Your task to perform on an android device: Clear the cart on newegg. Search for bose soundlink on newegg, select the first entry, add it to the cart, then select checkout. Image 0: 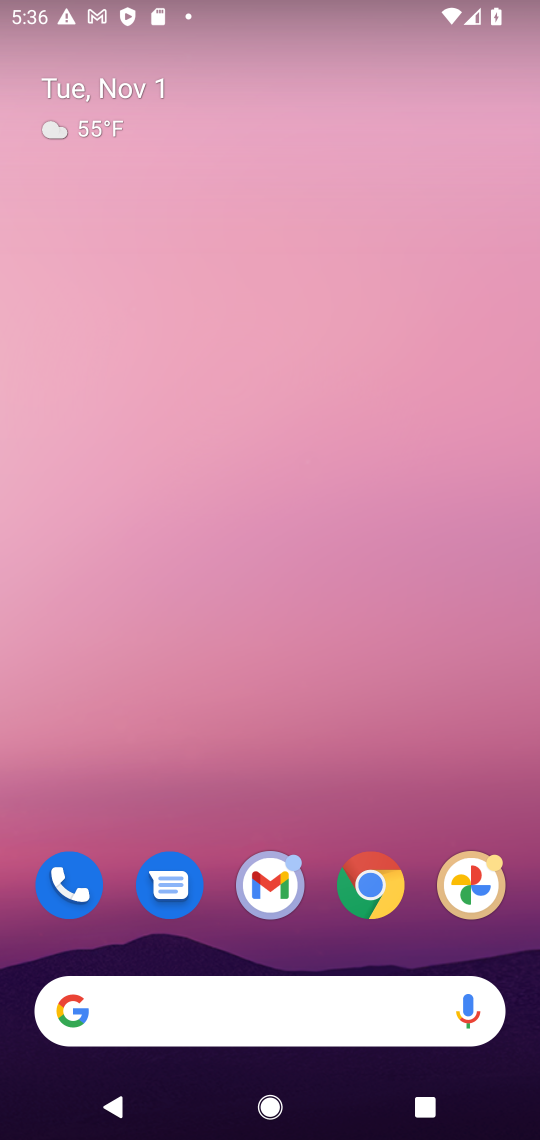
Step 0: click (372, 885)
Your task to perform on an android device: Clear the cart on newegg. Search for bose soundlink on newegg, select the first entry, add it to the cart, then select checkout. Image 1: 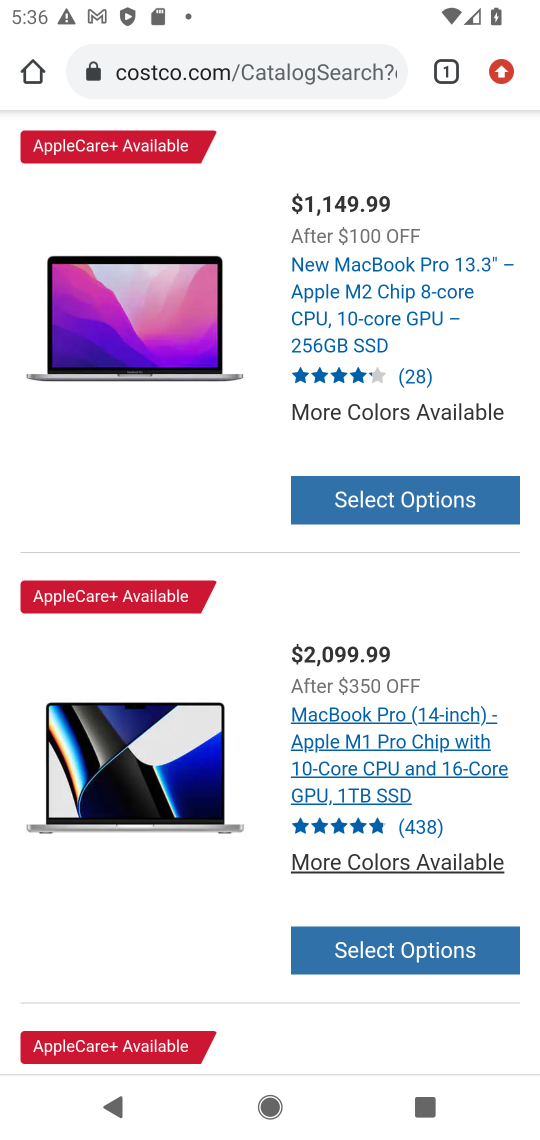
Step 1: click (273, 46)
Your task to perform on an android device: Clear the cart on newegg. Search for bose soundlink on newegg, select the first entry, add it to the cart, then select checkout. Image 2: 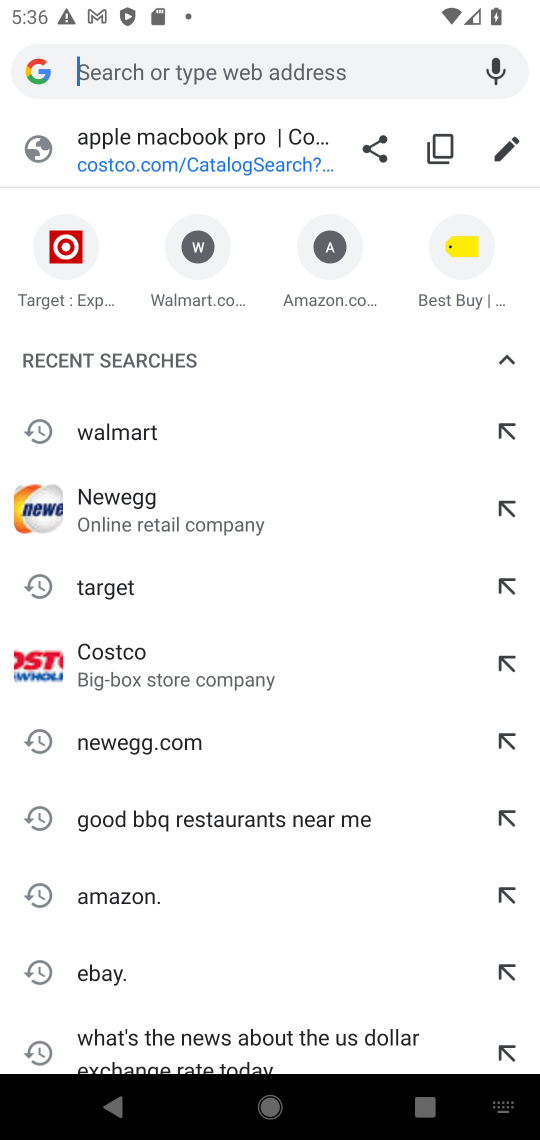
Step 2: type "newegg.com"
Your task to perform on an android device: Clear the cart on newegg. Search for bose soundlink on newegg, select the first entry, add it to the cart, then select checkout. Image 3: 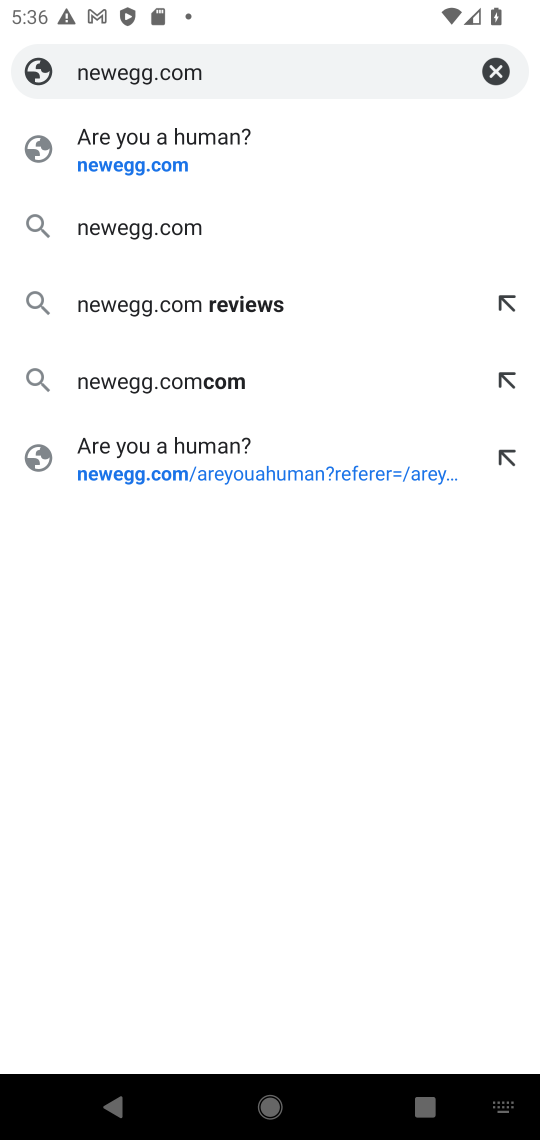
Step 3: click (127, 226)
Your task to perform on an android device: Clear the cart on newegg. Search for bose soundlink on newegg, select the first entry, add it to the cart, then select checkout. Image 4: 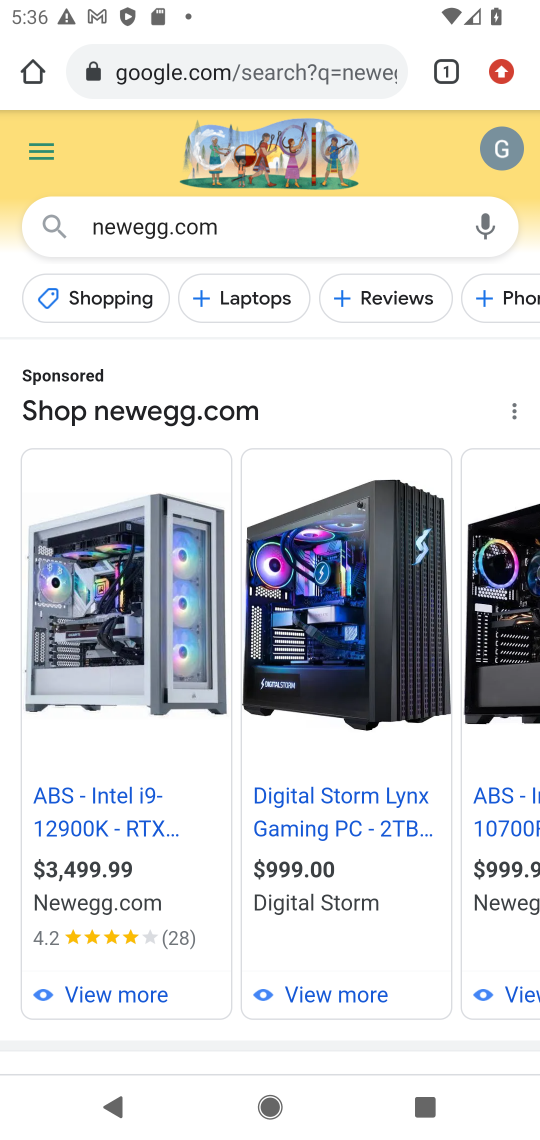
Step 4: drag from (456, 1028) to (421, 291)
Your task to perform on an android device: Clear the cart on newegg. Search for bose soundlink on newegg, select the first entry, add it to the cart, then select checkout. Image 5: 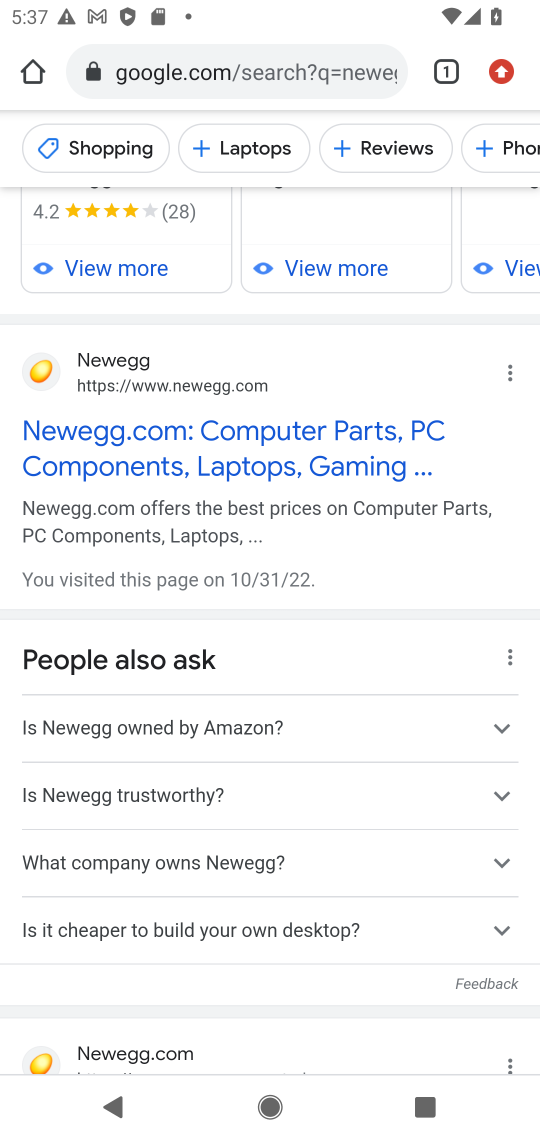
Step 5: click (108, 450)
Your task to perform on an android device: Clear the cart on newegg. Search for bose soundlink on newegg, select the first entry, add it to the cart, then select checkout. Image 6: 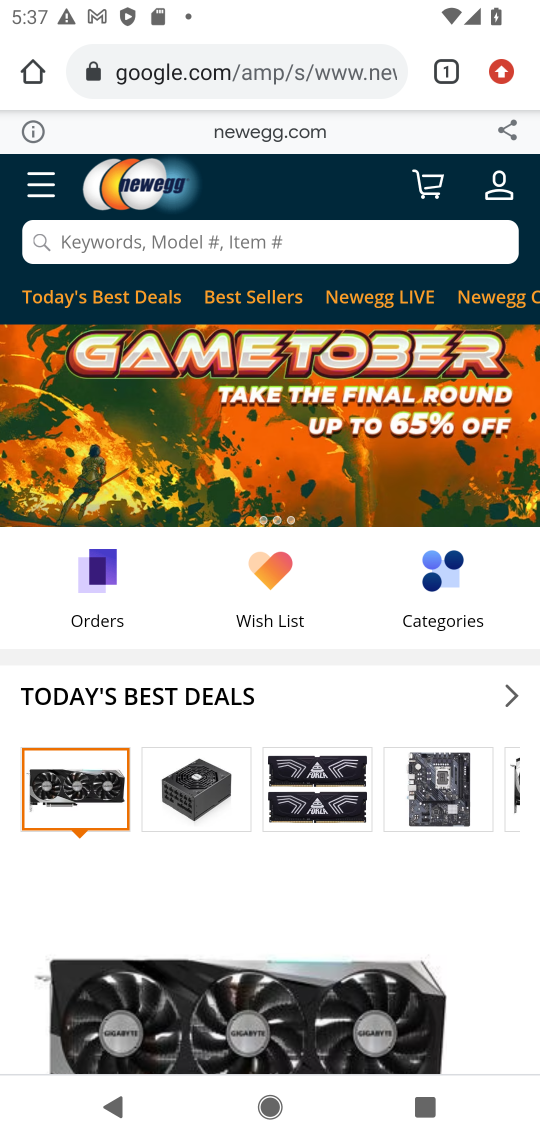
Step 6: click (90, 243)
Your task to perform on an android device: Clear the cart on newegg. Search for bose soundlink on newegg, select the first entry, add it to the cart, then select checkout. Image 7: 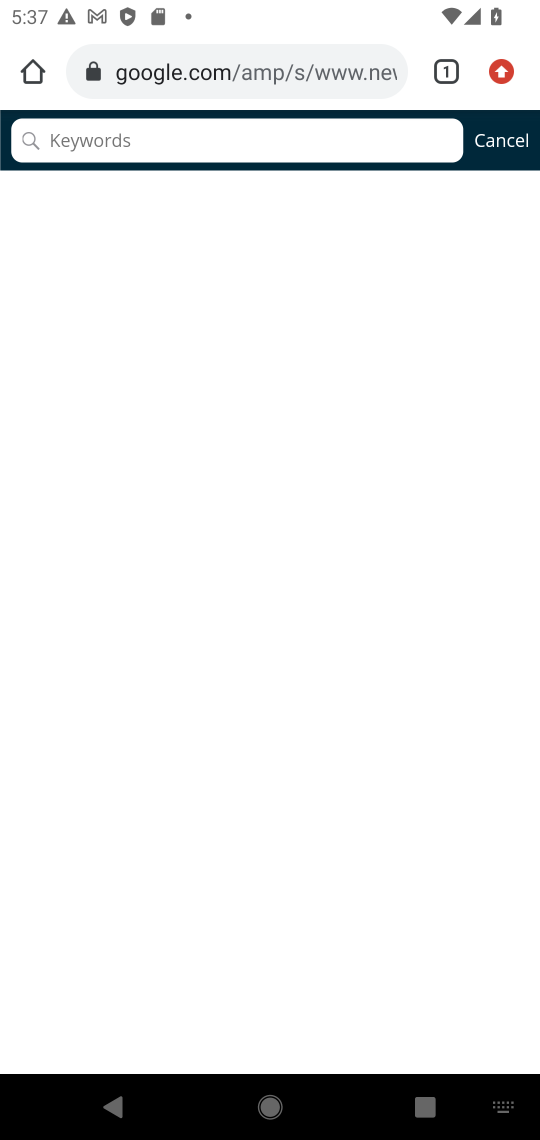
Step 7: type "bose soundlink "
Your task to perform on an android device: Clear the cart on newegg. Search for bose soundlink on newegg, select the first entry, add it to the cart, then select checkout. Image 8: 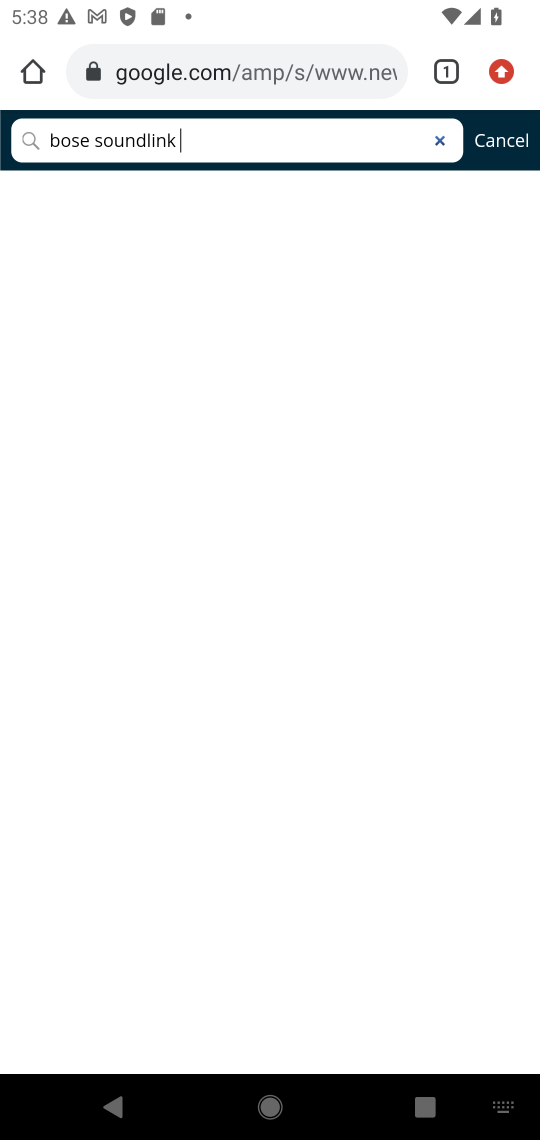
Step 8: click (440, 141)
Your task to perform on an android device: Clear the cart on newegg. Search for bose soundlink on newegg, select the first entry, add it to the cart, then select checkout. Image 9: 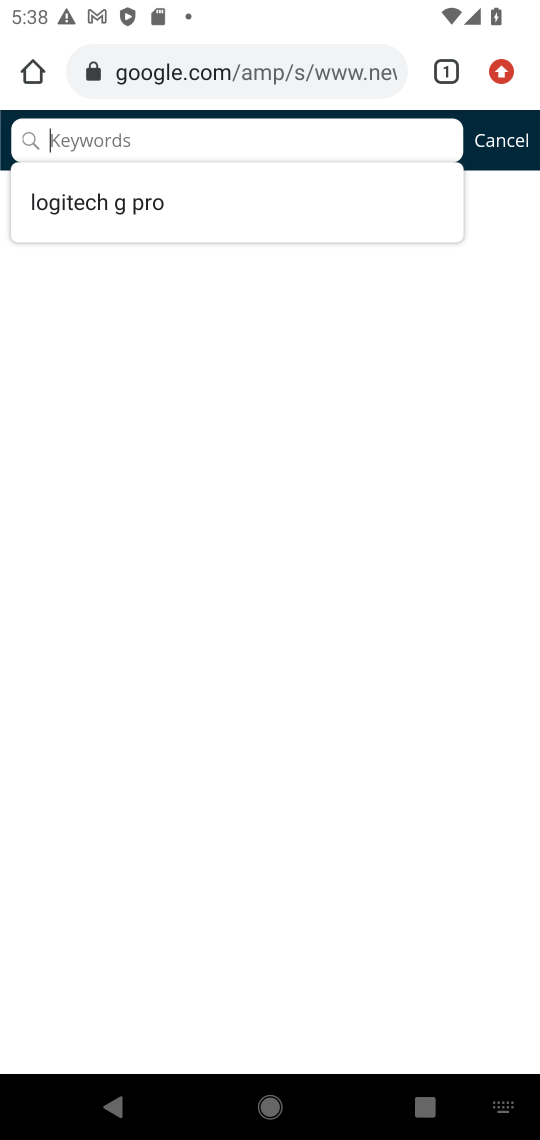
Step 9: click (485, 133)
Your task to perform on an android device: Clear the cart on newegg. Search for bose soundlink on newegg, select the first entry, add it to the cart, then select checkout. Image 10: 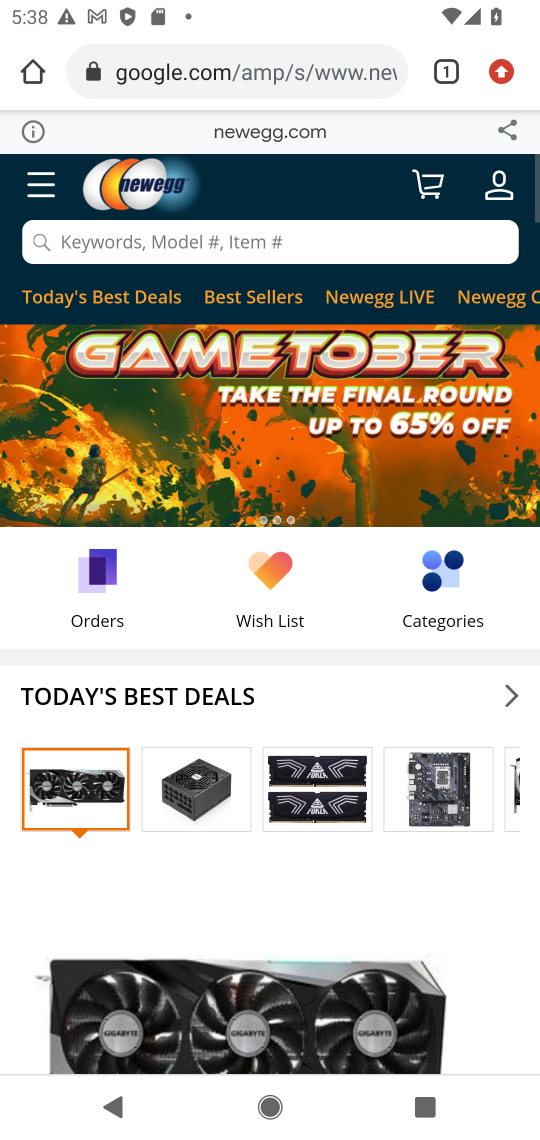
Step 10: click (423, 180)
Your task to perform on an android device: Clear the cart on newegg. Search for bose soundlink on newegg, select the first entry, add it to the cart, then select checkout. Image 11: 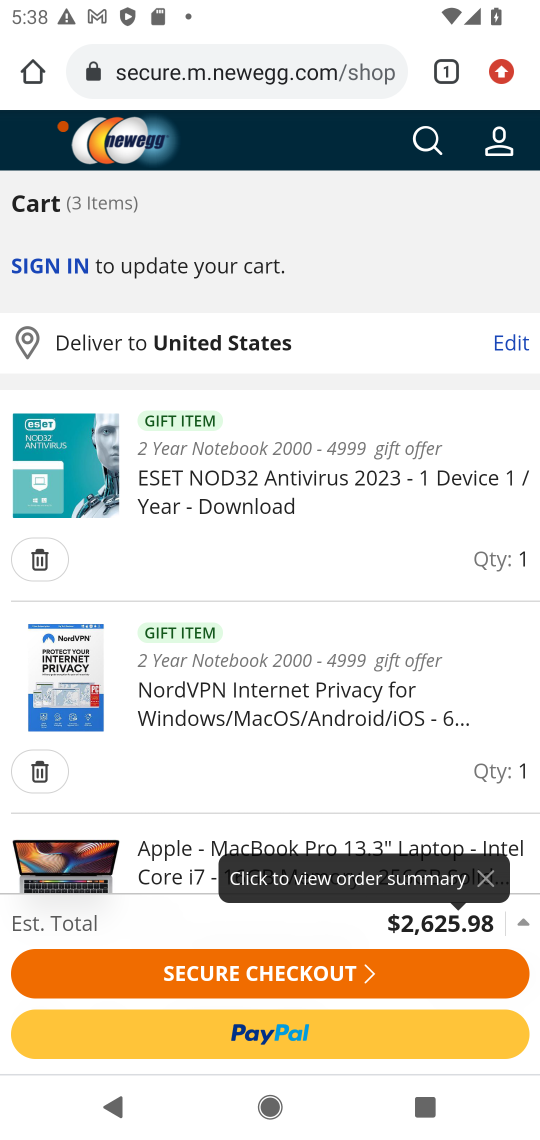
Step 11: drag from (294, 776) to (287, 427)
Your task to perform on an android device: Clear the cart on newegg. Search for bose soundlink on newegg, select the first entry, add it to the cart, then select checkout. Image 12: 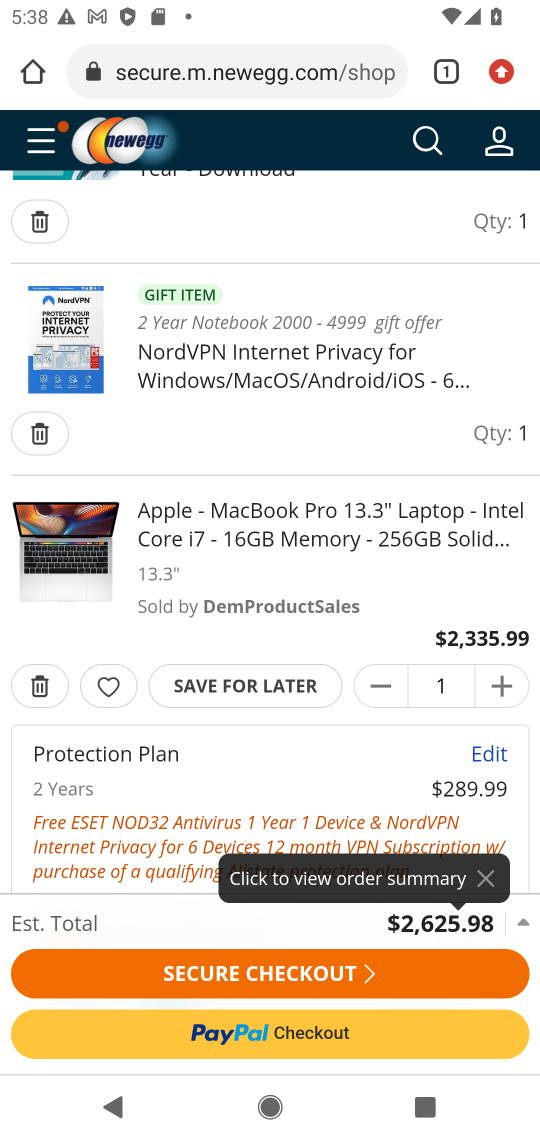
Step 12: click (35, 431)
Your task to perform on an android device: Clear the cart on newegg. Search for bose soundlink on newegg, select the first entry, add it to the cart, then select checkout. Image 13: 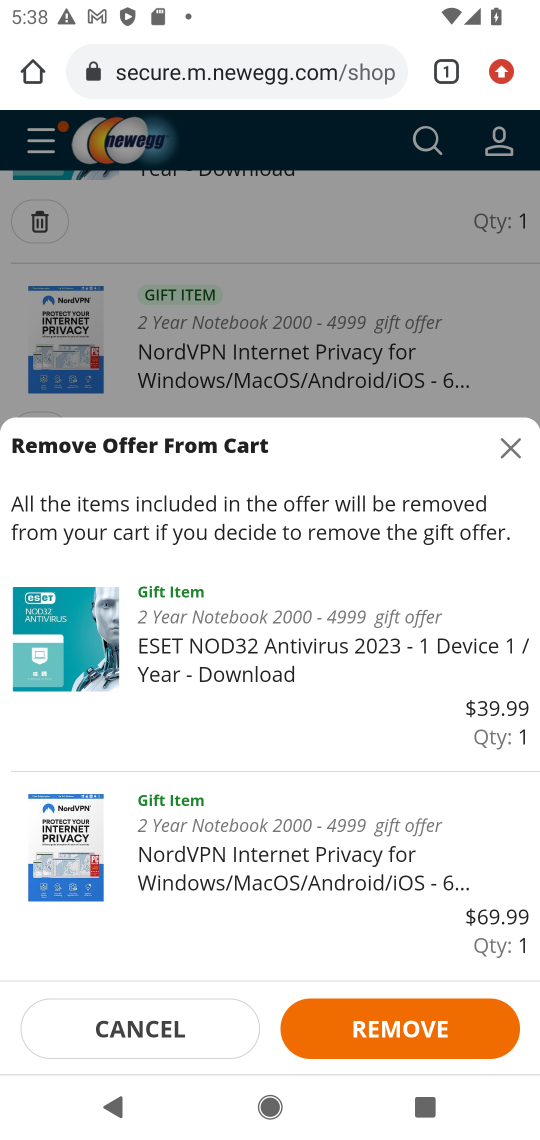
Step 13: click (369, 1031)
Your task to perform on an android device: Clear the cart on newegg. Search for bose soundlink on newegg, select the first entry, add it to the cart, then select checkout. Image 14: 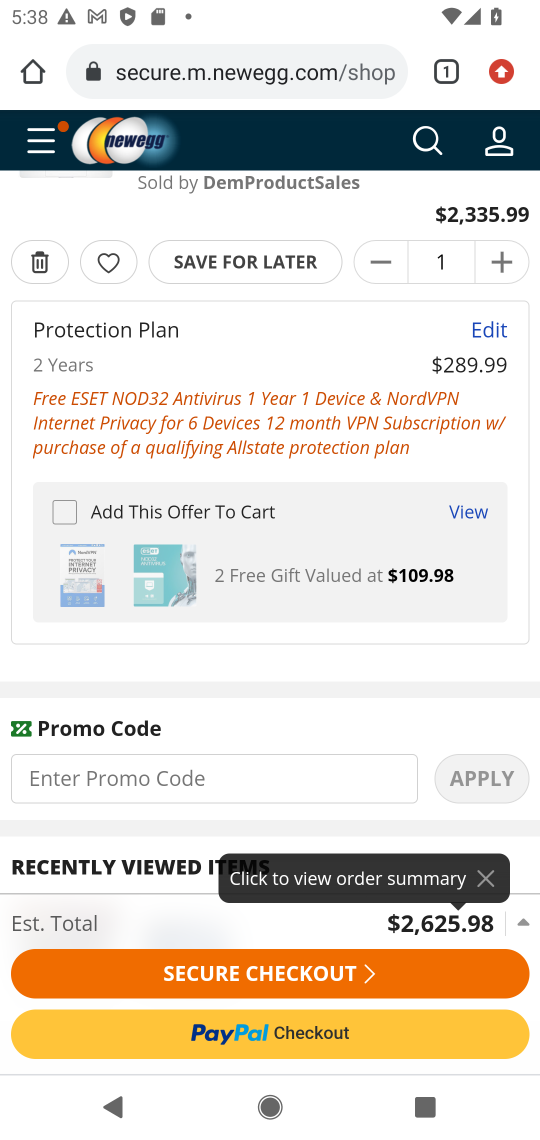
Step 14: click (37, 262)
Your task to perform on an android device: Clear the cart on newegg. Search for bose soundlink on newegg, select the first entry, add it to the cart, then select checkout. Image 15: 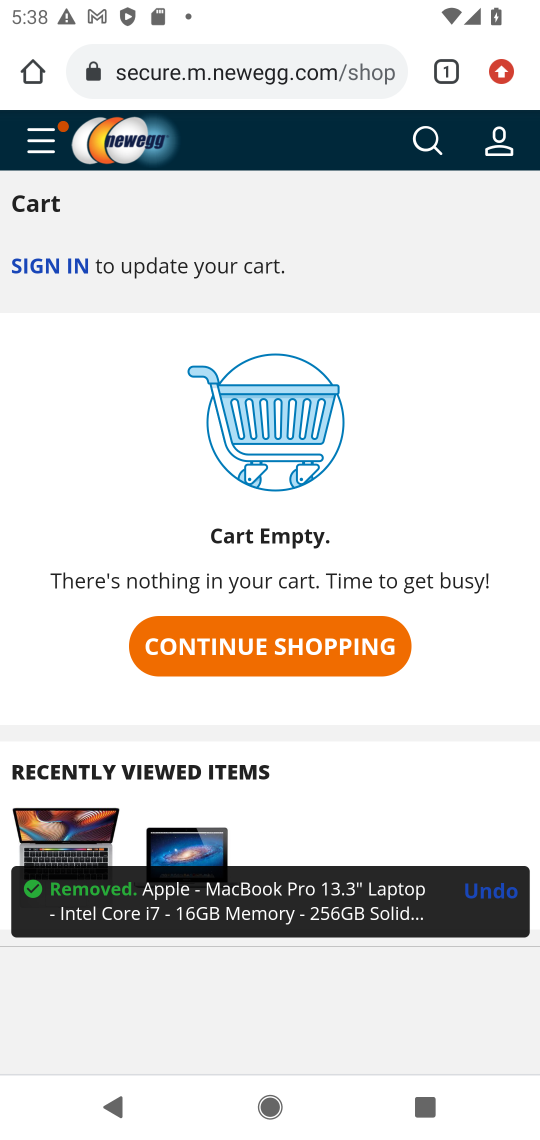
Step 15: click (422, 134)
Your task to perform on an android device: Clear the cart on newegg. Search for bose soundlink on newegg, select the first entry, add it to the cart, then select checkout. Image 16: 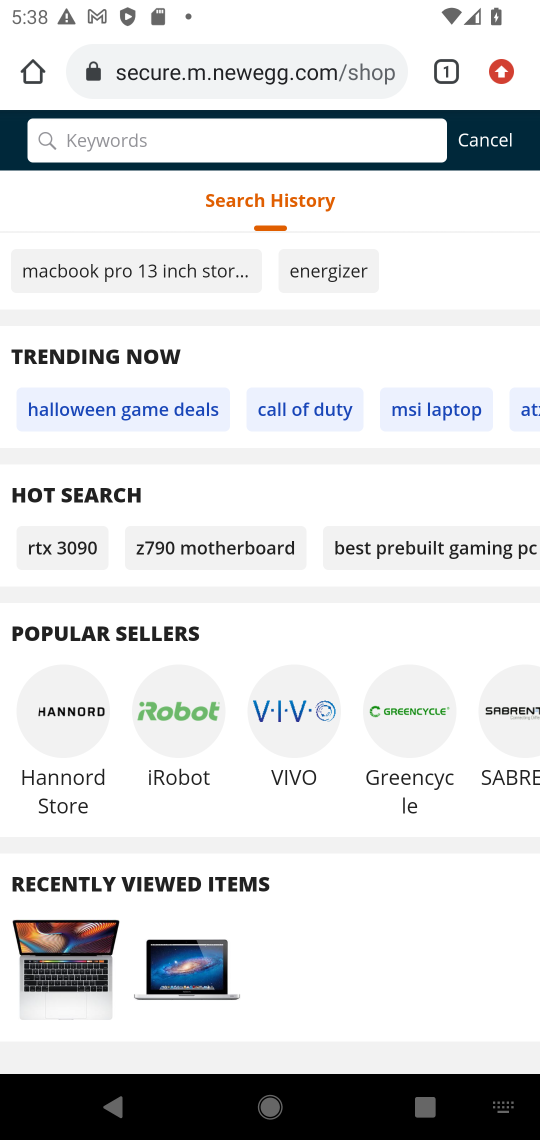
Step 16: type "bose soundlink"
Your task to perform on an android device: Clear the cart on newegg. Search for bose soundlink on newegg, select the first entry, add it to the cart, then select checkout. Image 17: 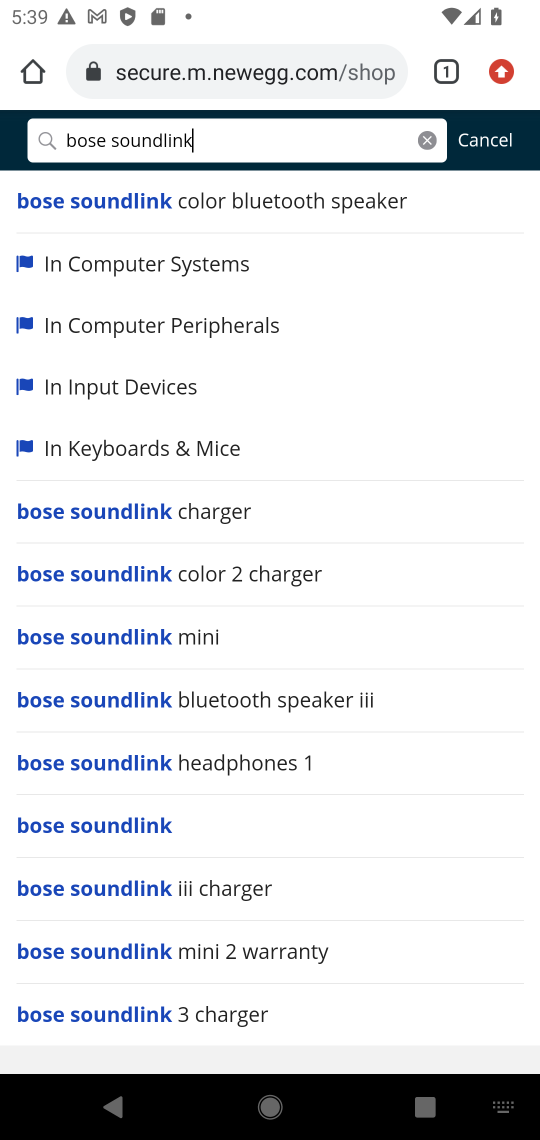
Step 17: click (93, 204)
Your task to perform on an android device: Clear the cart on newegg. Search for bose soundlink on newegg, select the first entry, add it to the cart, then select checkout. Image 18: 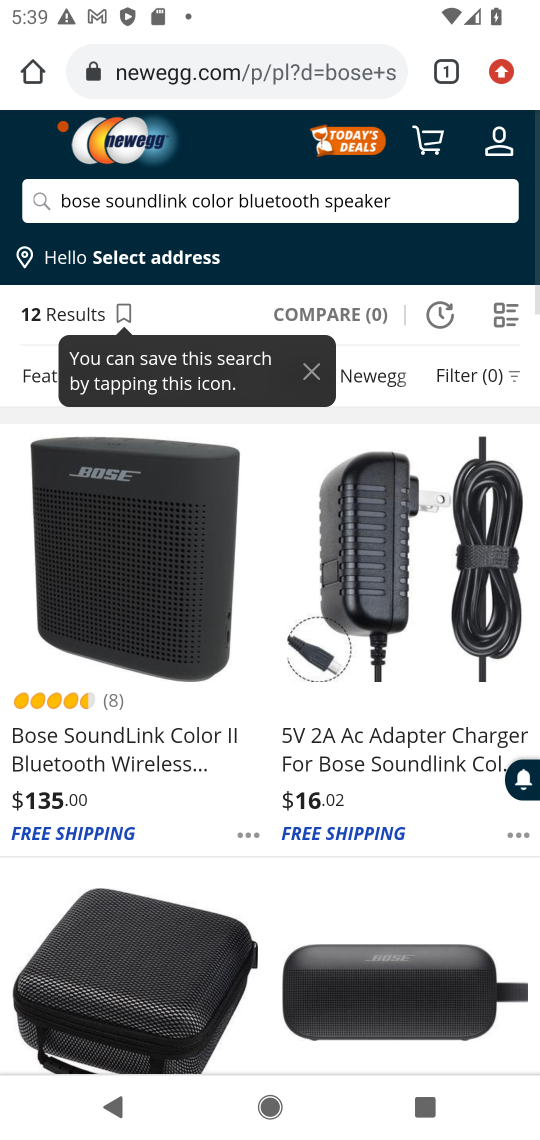
Step 18: click (73, 751)
Your task to perform on an android device: Clear the cart on newegg. Search for bose soundlink on newegg, select the first entry, add it to the cart, then select checkout. Image 19: 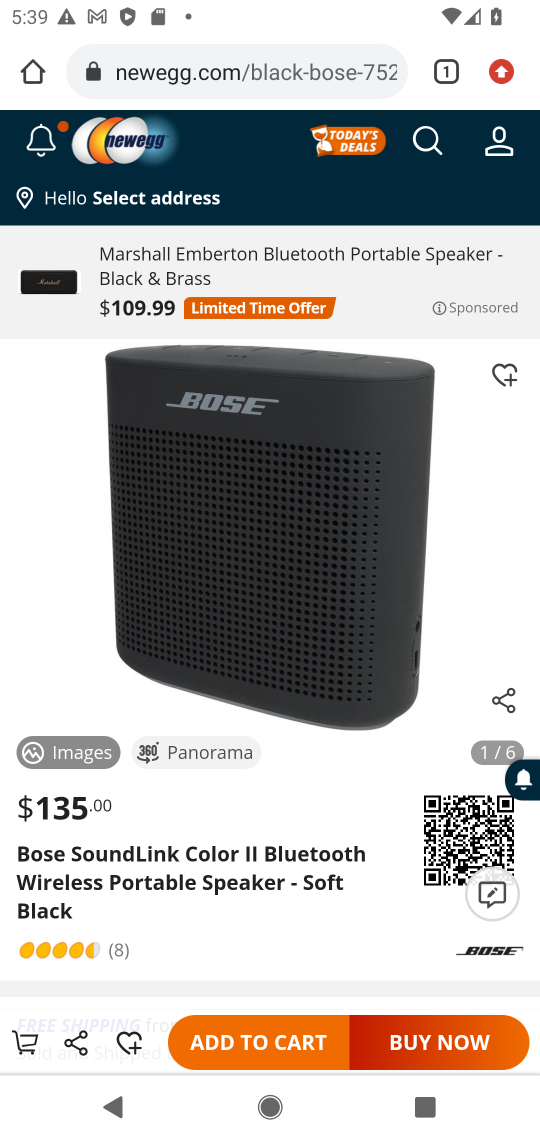
Step 19: drag from (239, 877) to (277, 406)
Your task to perform on an android device: Clear the cart on newegg. Search for bose soundlink on newegg, select the first entry, add it to the cart, then select checkout. Image 20: 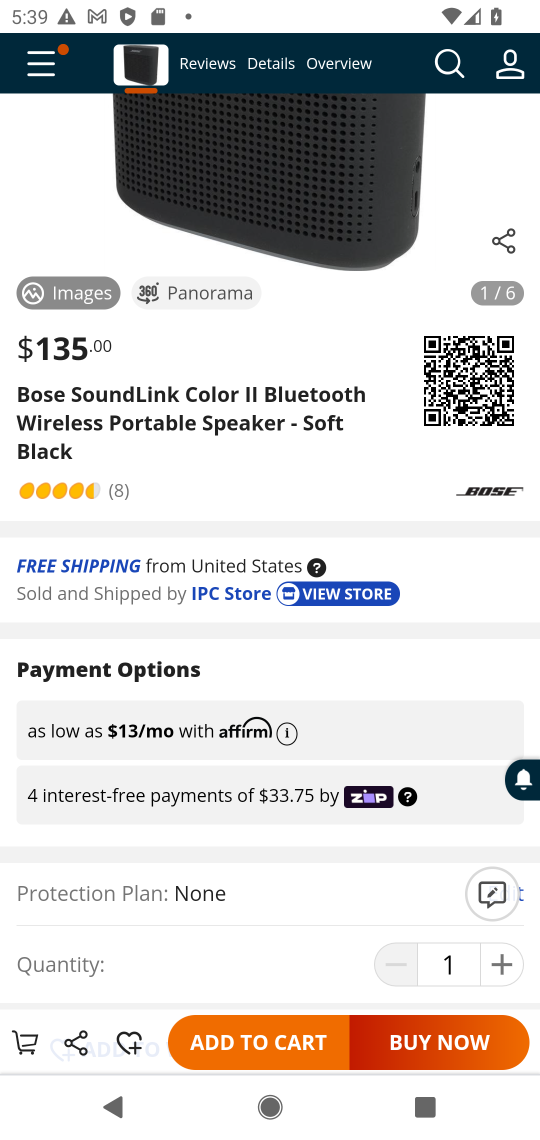
Step 20: click (268, 1035)
Your task to perform on an android device: Clear the cart on newegg. Search for bose soundlink on newegg, select the first entry, add it to the cart, then select checkout. Image 21: 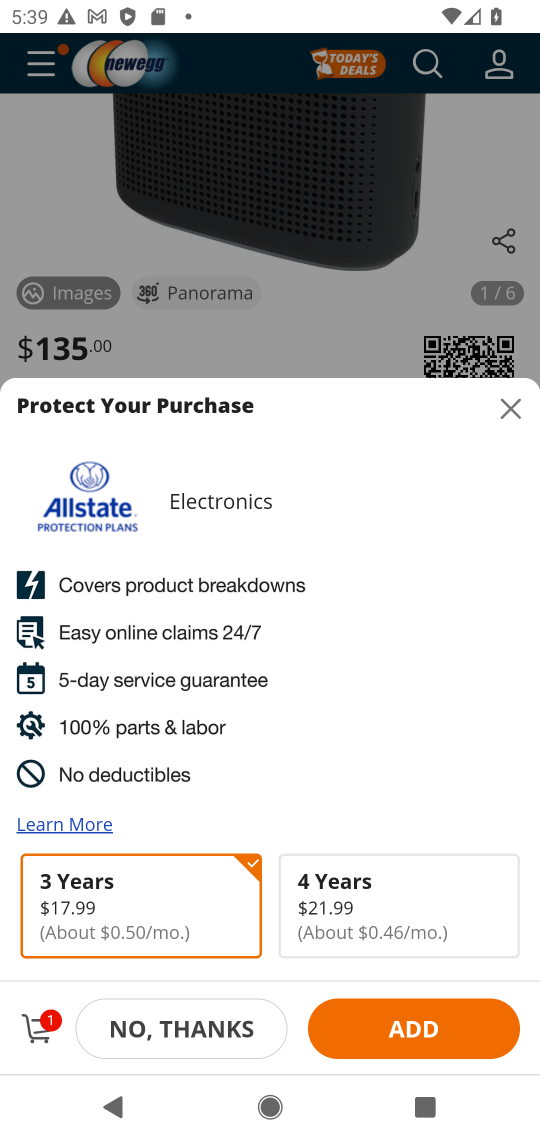
Step 21: click (409, 1034)
Your task to perform on an android device: Clear the cart on newegg. Search for bose soundlink on newegg, select the first entry, add it to the cart, then select checkout. Image 22: 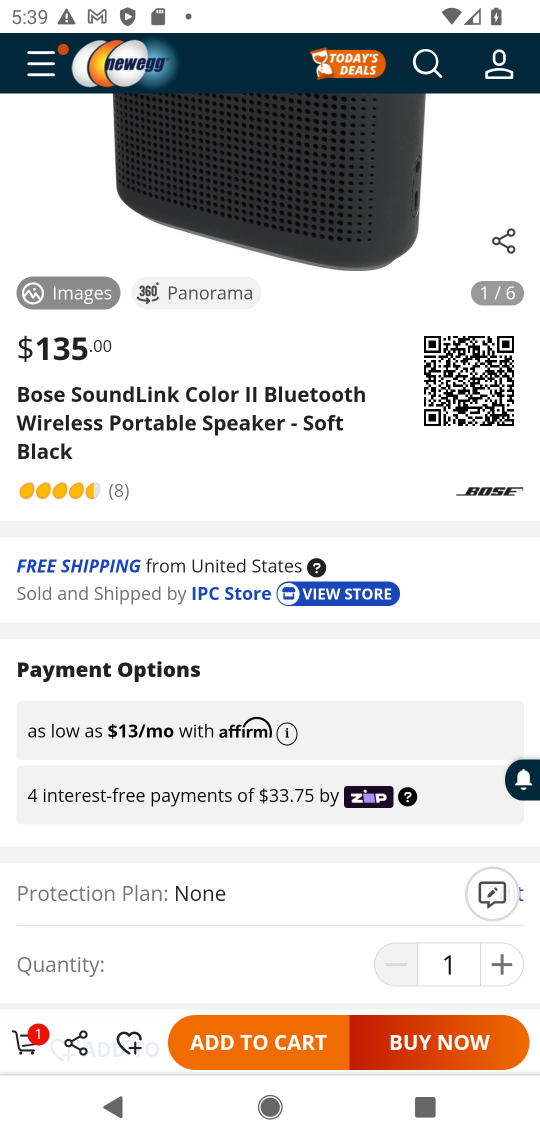
Step 22: click (26, 1045)
Your task to perform on an android device: Clear the cart on newegg. Search for bose soundlink on newegg, select the first entry, add it to the cart, then select checkout. Image 23: 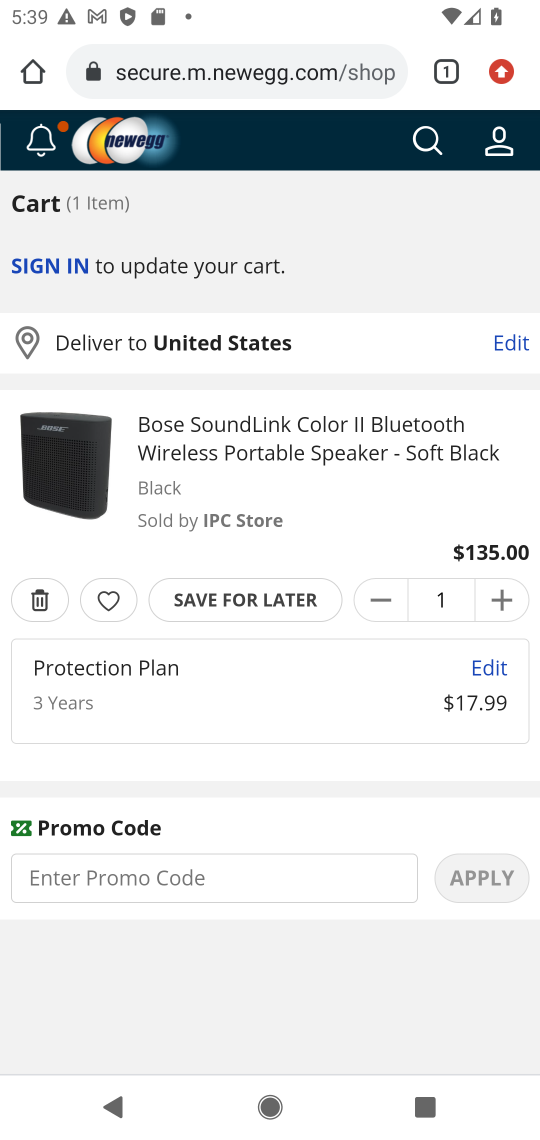
Step 23: click (272, 963)
Your task to perform on an android device: Clear the cart on newegg. Search for bose soundlink on newegg, select the first entry, add it to the cart, then select checkout. Image 24: 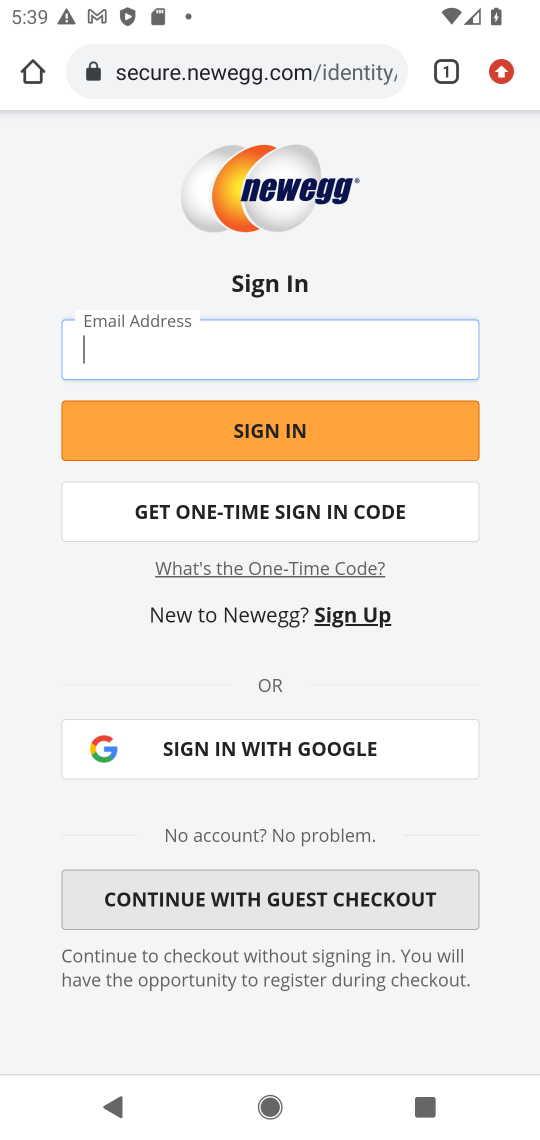
Step 24: task complete